Your task to perform on an android device: Show me popular videos on Youtube Image 0: 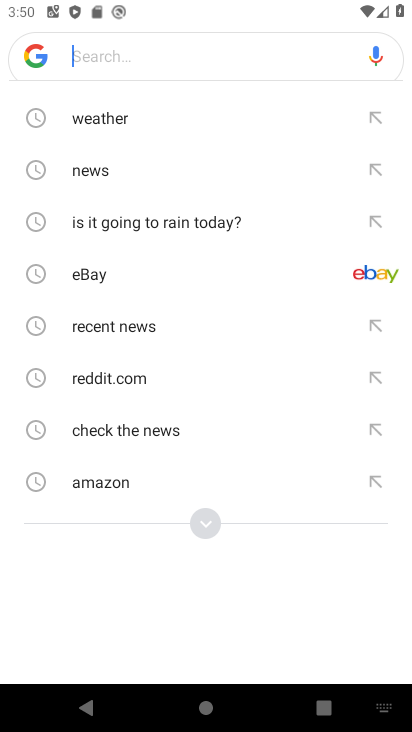
Step 0: press back button
Your task to perform on an android device: Show me popular videos on Youtube Image 1: 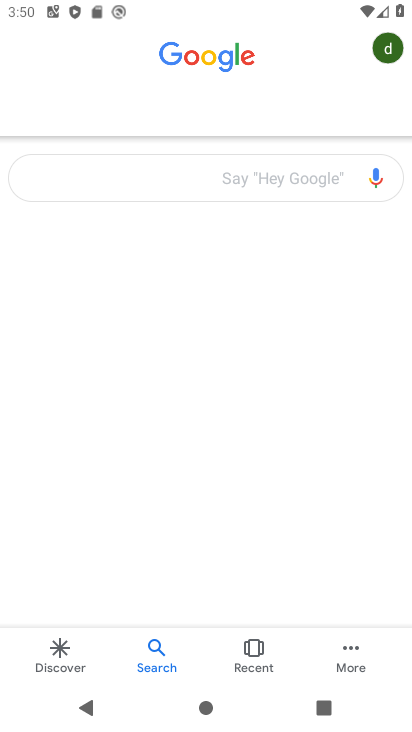
Step 1: press back button
Your task to perform on an android device: Show me popular videos on Youtube Image 2: 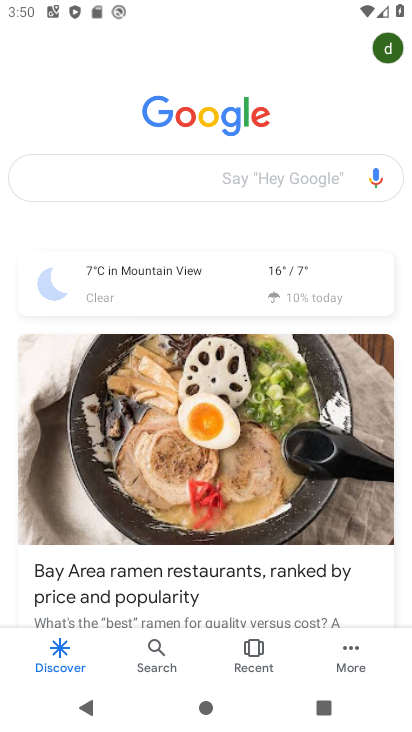
Step 2: press back button
Your task to perform on an android device: Show me popular videos on Youtube Image 3: 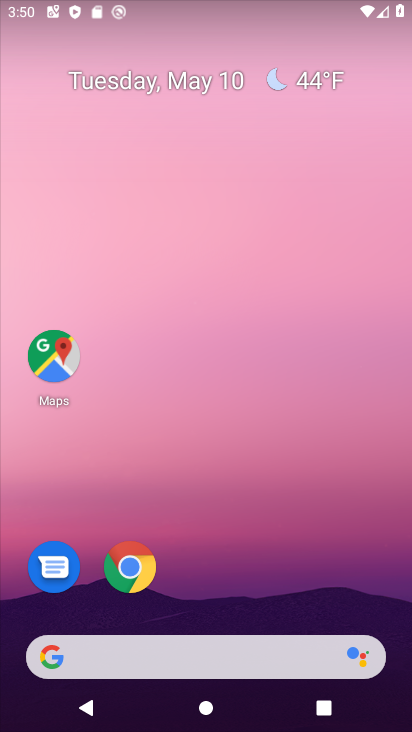
Step 3: drag from (261, 568) to (183, 81)
Your task to perform on an android device: Show me popular videos on Youtube Image 4: 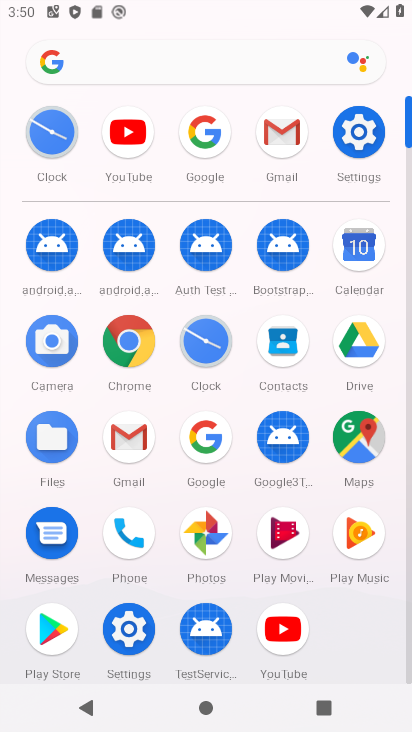
Step 4: click (125, 132)
Your task to perform on an android device: Show me popular videos on Youtube Image 5: 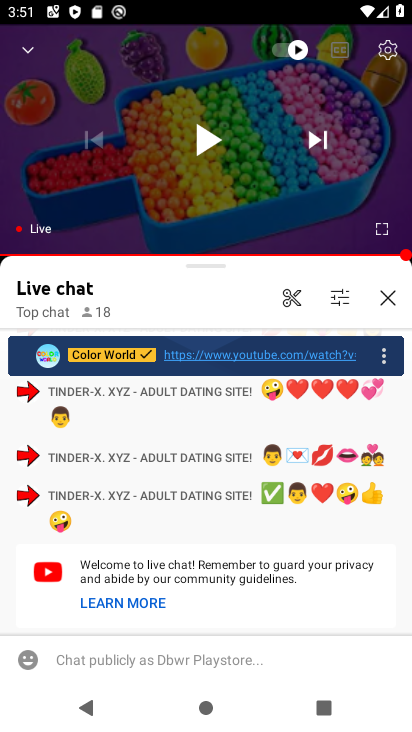
Step 5: press back button
Your task to perform on an android device: Show me popular videos on Youtube Image 6: 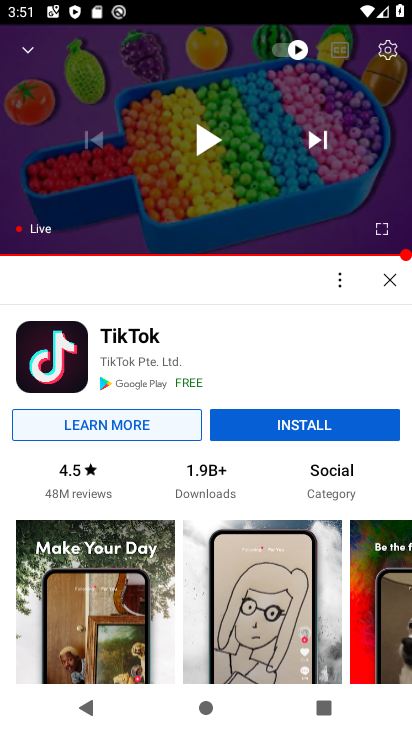
Step 6: press back button
Your task to perform on an android device: Show me popular videos on Youtube Image 7: 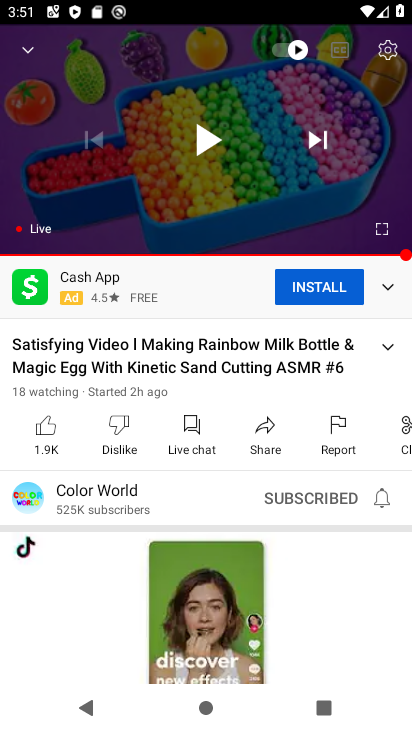
Step 7: press back button
Your task to perform on an android device: Show me popular videos on Youtube Image 8: 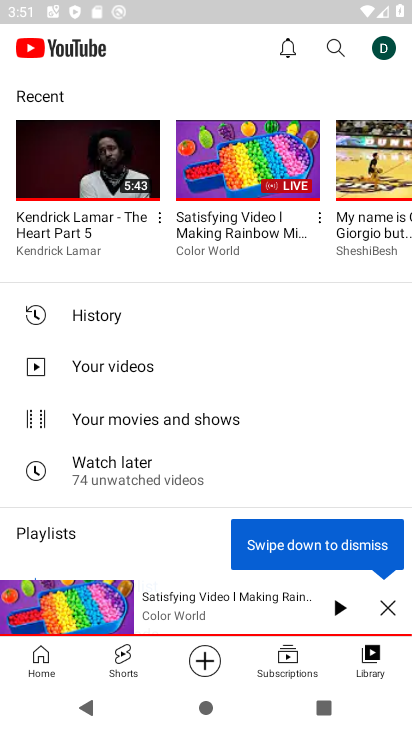
Step 8: click (335, 46)
Your task to perform on an android device: Show me popular videos on Youtube Image 9: 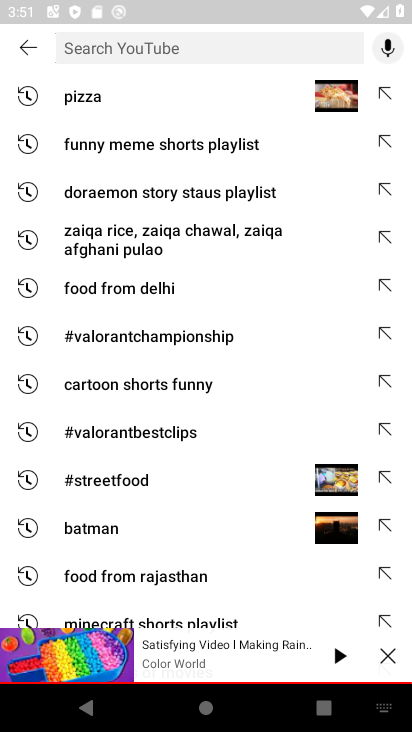
Step 9: type "popular videos"
Your task to perform on an android device: Show me popular videos on Youtube Image 10: 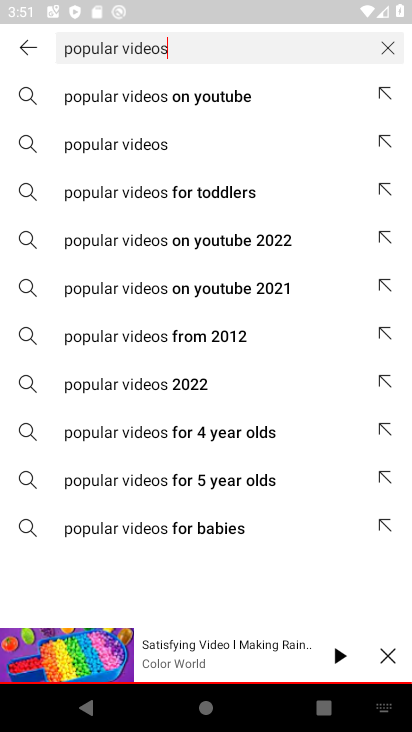
Step 10: click (222, 94)
Your task to perform on an android device: Show me popular videos on Youtube Image 11: 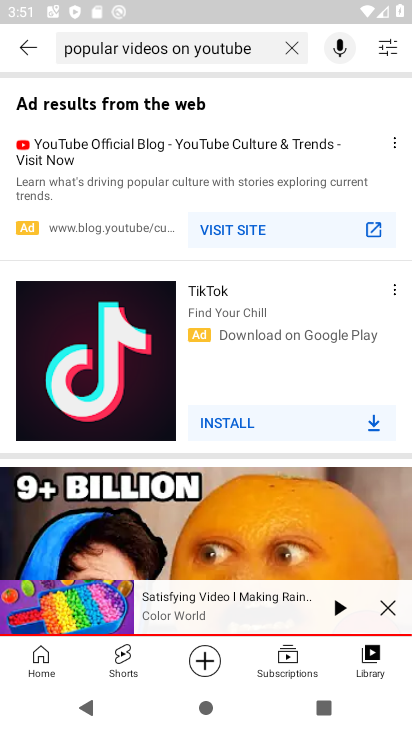
Step 11: click (385, 603)
Your task to perform on an android device: Show me popular videos on Youtube Image 12: 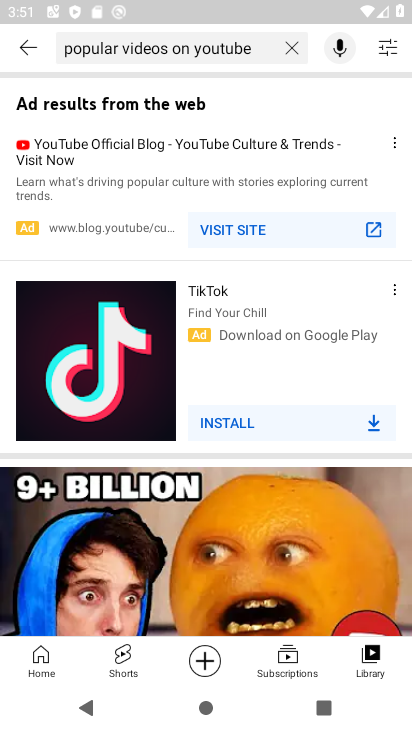
Step 12: task complete